Your task to perform on an android device: Go to privacy settings Image 0: 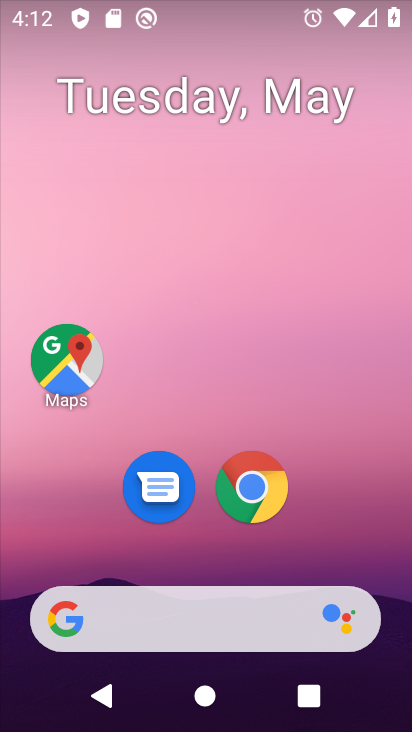
Step 0: drag from (332, 496) to (315, 70)
Your task to perform on an android device: Go to privacy settings Image 1: 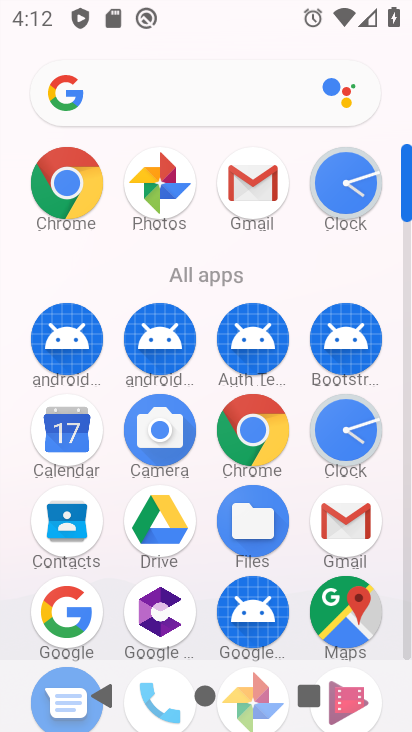
Step 1: drag from (303, 646) to (261, 187)
Your task to perform on an android device: Go to privacy settings Image 2: 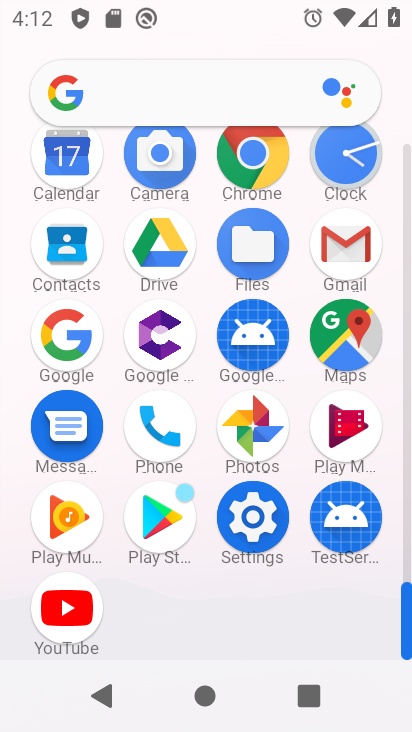
Step 2: click (266, 535)
Your task to perform on an android device: Go to privacy settings Image 3: 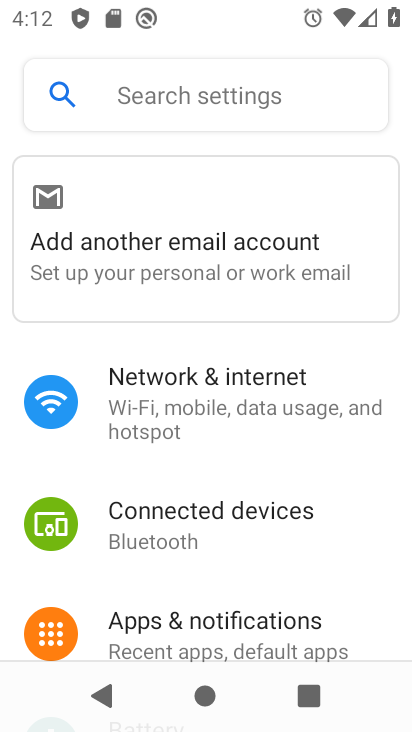
Step 3: drag from (270, 586) to (224, 209)
Your task to perform on an android device: Go to privacy settings Image 4: 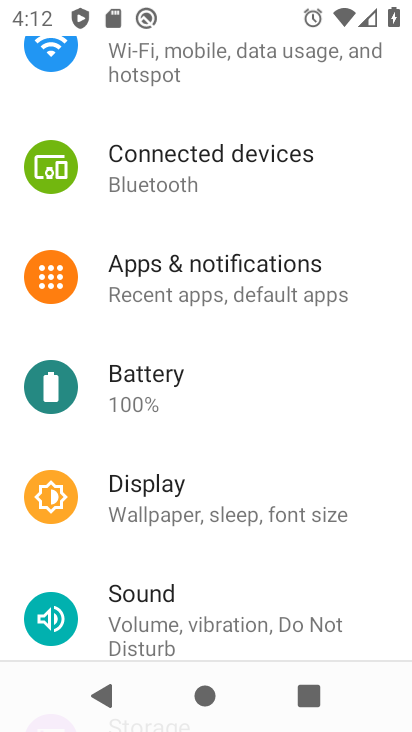
Step 4: drag from (280, 579) to (265, 171)
Your task to perform on an android device: Go to privacy settings Image 5: 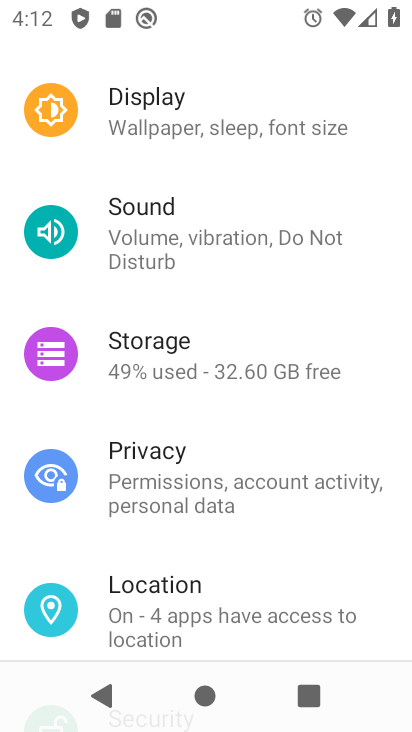
Step 5: click (255, 495)
Your task to perform on an android device: Go to privacy settings Image 6: 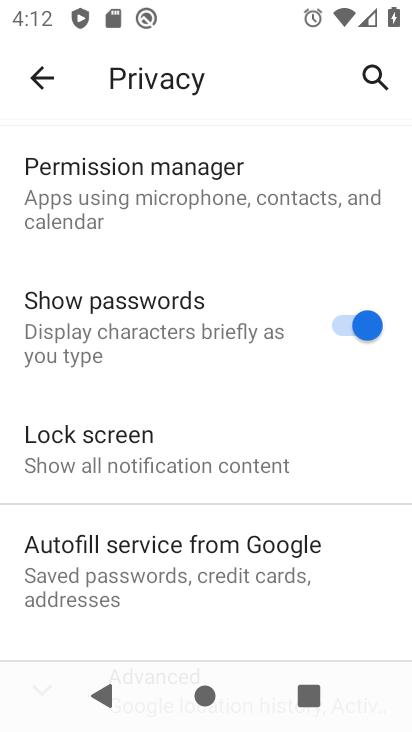
Step 6: task complete